Your task to perform on an android device: toggle pop-ups in chrome Image 0: 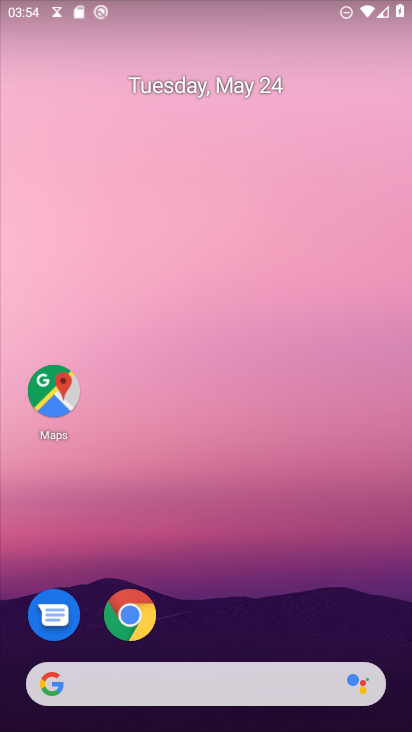
Step 0: drag from (234, 515) to (203, 57)
Your task to perform on an android device: toggle pop-ups in chrome Image 1: 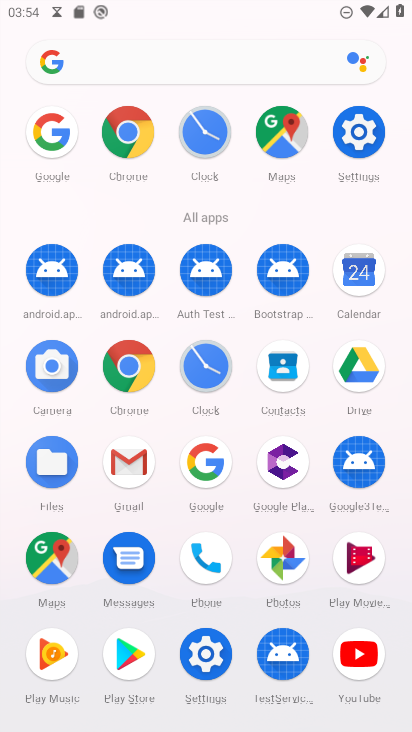
Step 1: click (204, 656)
Your task to perform on an android device: toggle pop-ups in chrome Image 2: 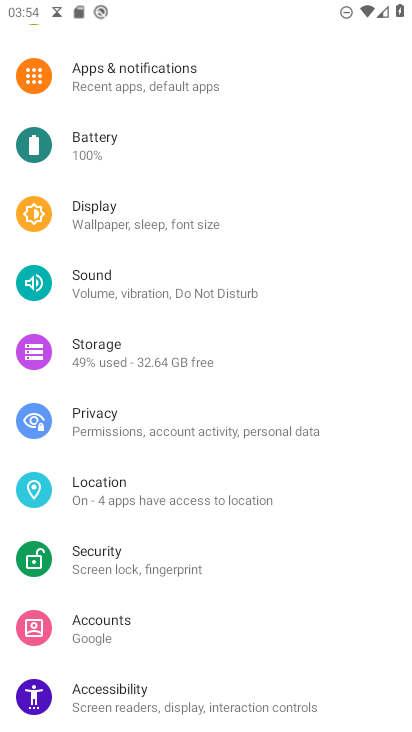
Step 2: drag from (240, 163) to (228, 598)
Your task to perform on an android device: toggle pop-ups in chrome Image 3: 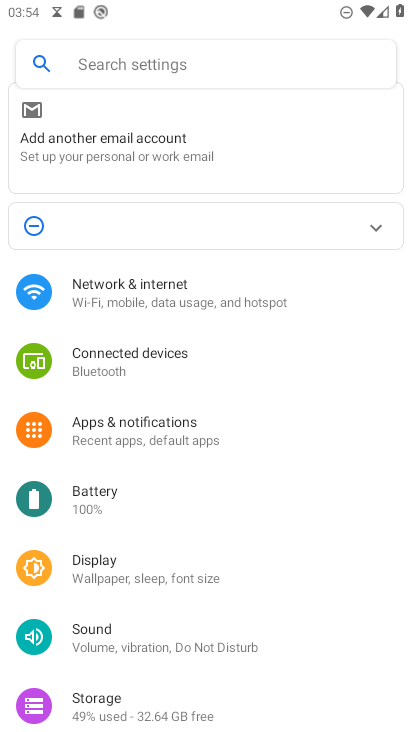
Step 3: drag from (251, 534) to (262, 208)
Your task to perform on an android device: toggle pop-ups in chrome Image 4: 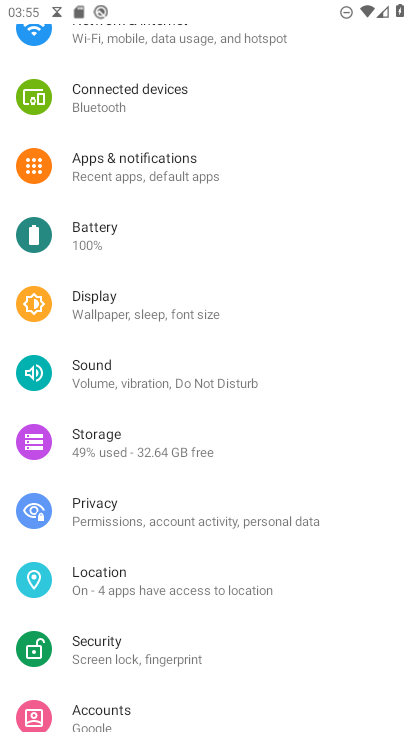
Step 4: press back button
Your task to perform on an android device: toggle pop-ups in chrome Image 5: 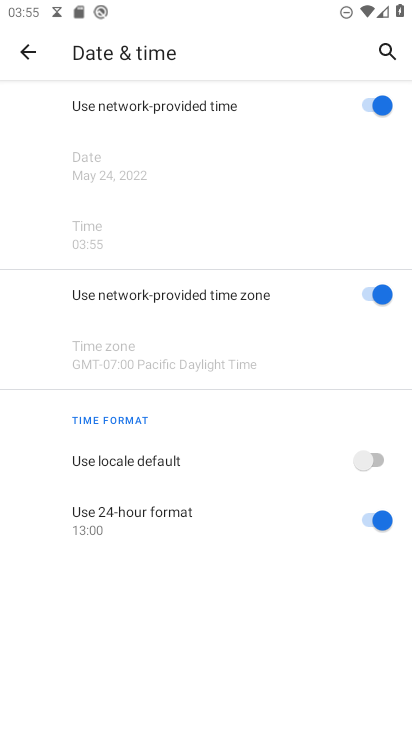
Step 5: press home button
Your task to perform on an android device: toggle pop-ups in chrome Image 6: 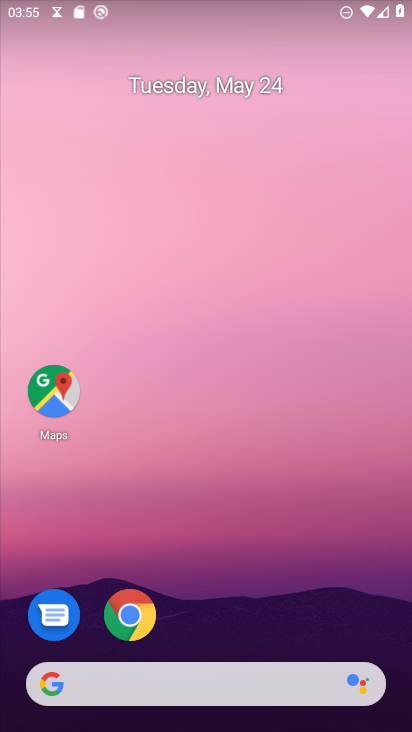
Step 6: drag from (264, 501) to (236, 14)
Your task to perform on an android device: toggle pop-ups in chrome Image 7: 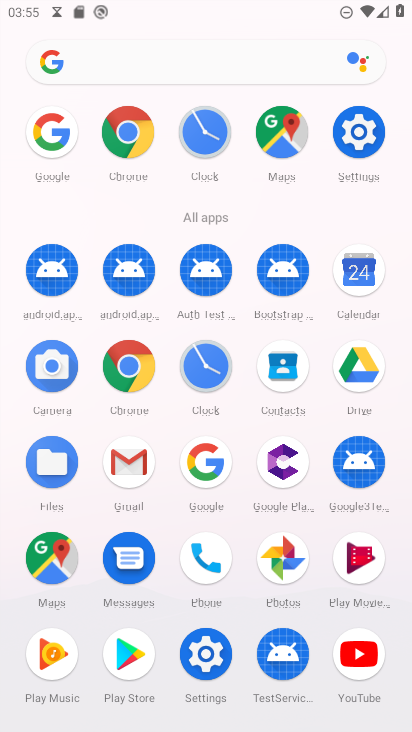
Step 7: click (131, 362)
Your task to perform on an android device: toggle pop-ups in chrome Image 8: 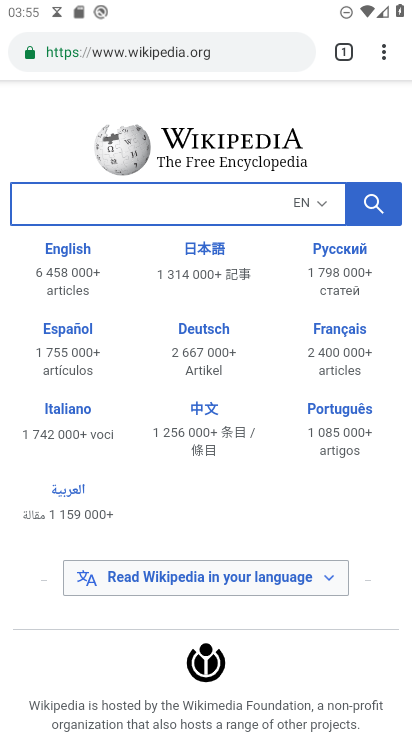
Step 8: drag from (386, 42) to (181, 632)
Your task to perform on an android device: toggle pop-ups in chrome Image 9: 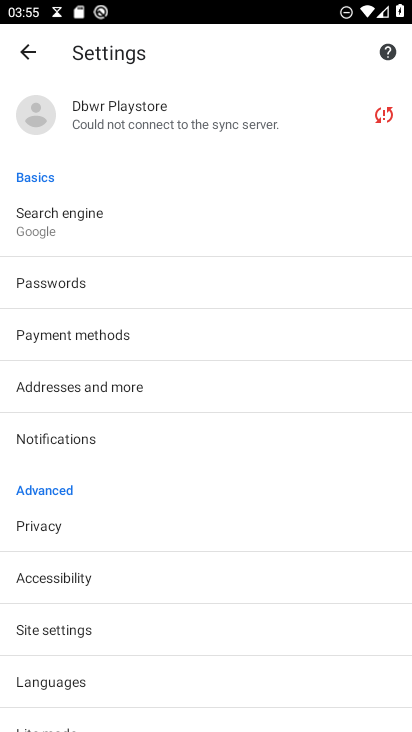
Step 9: drag from (312, 722) to (252, 351)
Your task to perform on an android device: toggle pop-ups in chrome Image 10: 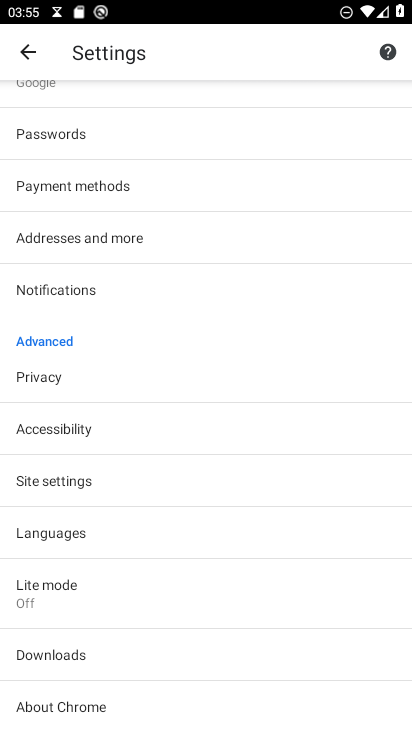
Step 10: click (77, 493)
Your task to perform on an android device: toggle pop-ups in chrome Image 11: 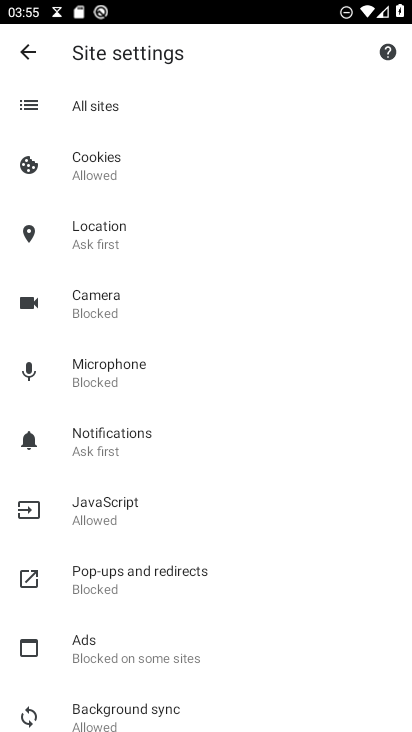
Step 11: click (99, 515)
Your task to perform on an android device: toggle pop-ups in chrome Image 12: 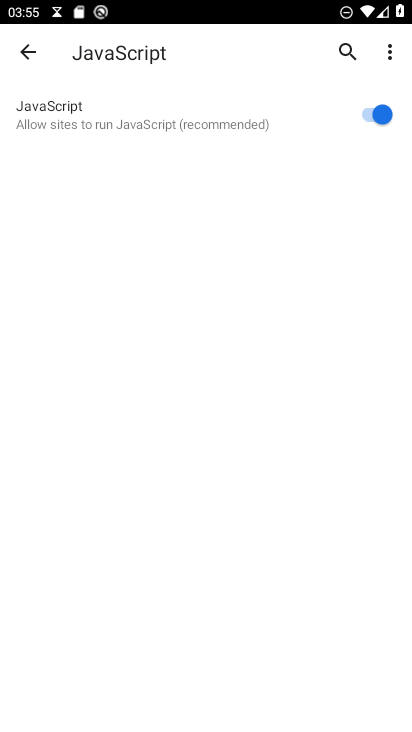
Step 12: click (365, 113)
Your task to perform on an android device: toggle pop-ups in chrome Image 13: 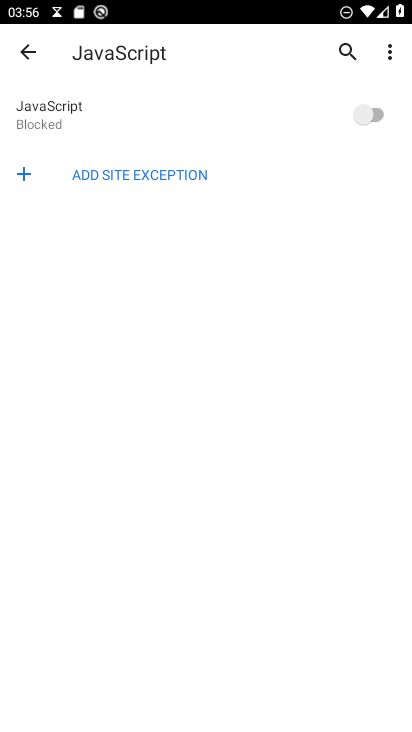
Step 13: task complete